Your task to perform on an android device: Open Google Chrome and click the shortcut for Amazon.com Image 0: 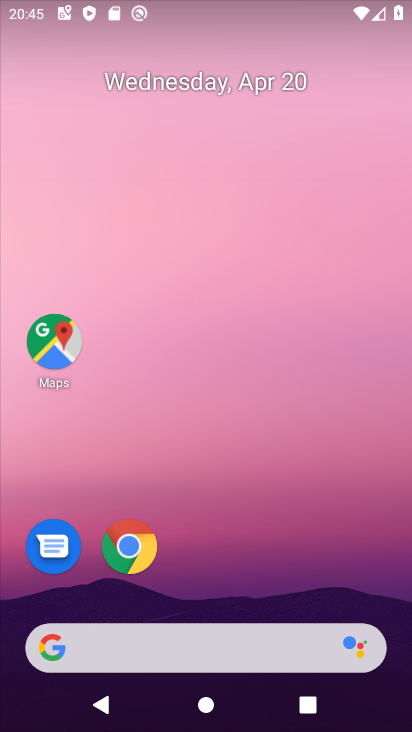
Step 0: click (136, 546)
Your task to perform on an android device: Open Google Chrome and click the shortcut for Amazon.com Image 1: 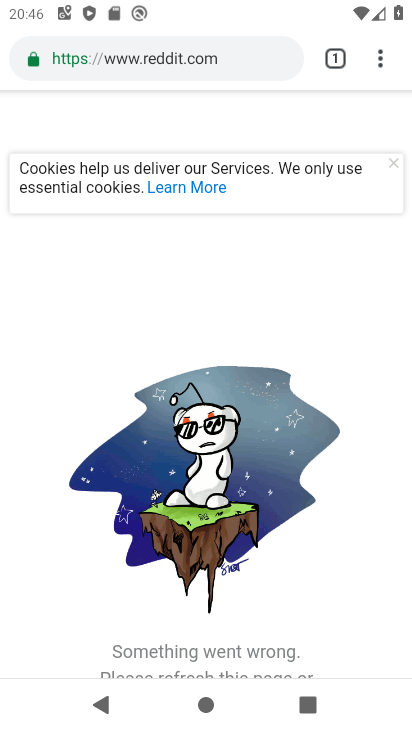
Step 1: click (344, 49)
Your task to perform on an android device: Open Google Chrome and click the shortcut for Amazon.com Image 2: 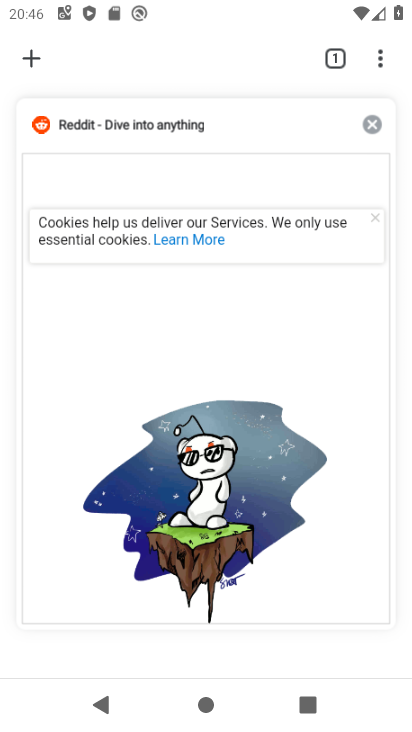
Step 2: click (370, 118)
Your task to perform on an android device: Open Google Chrome and click the shortcut for Amazon.com Image 3: 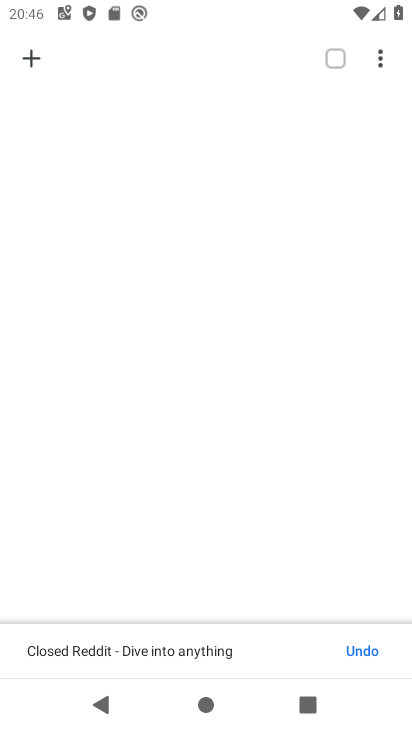
Step 3: click (29, 61)
Your task to perform on an android device: Open Google Chrome and click the shortcut for Amazon.com Image 4: 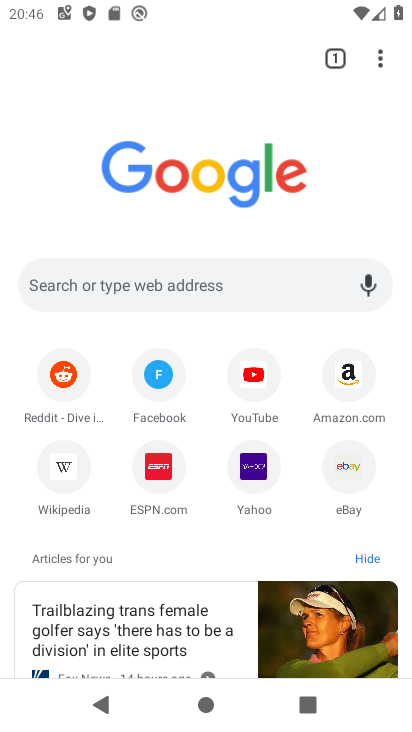
Step 4: click (336, 367)
Your task to perform on an android device: Open Google Chrome and click the shortcut for Amazon.com Image 5: 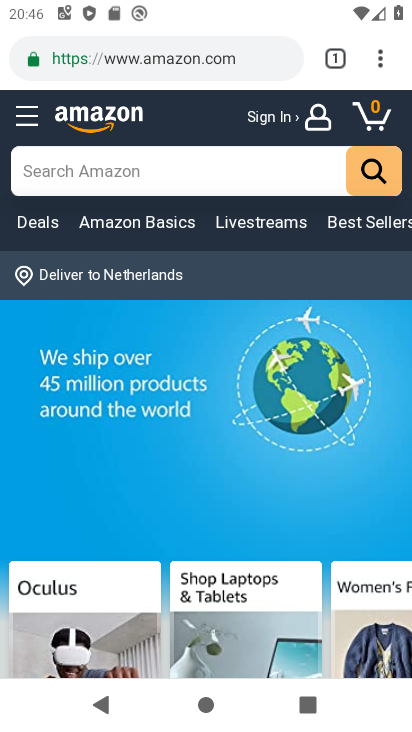
Step 5: task complete